Your task to perform on an android device: install app "Venmo" Image 0: 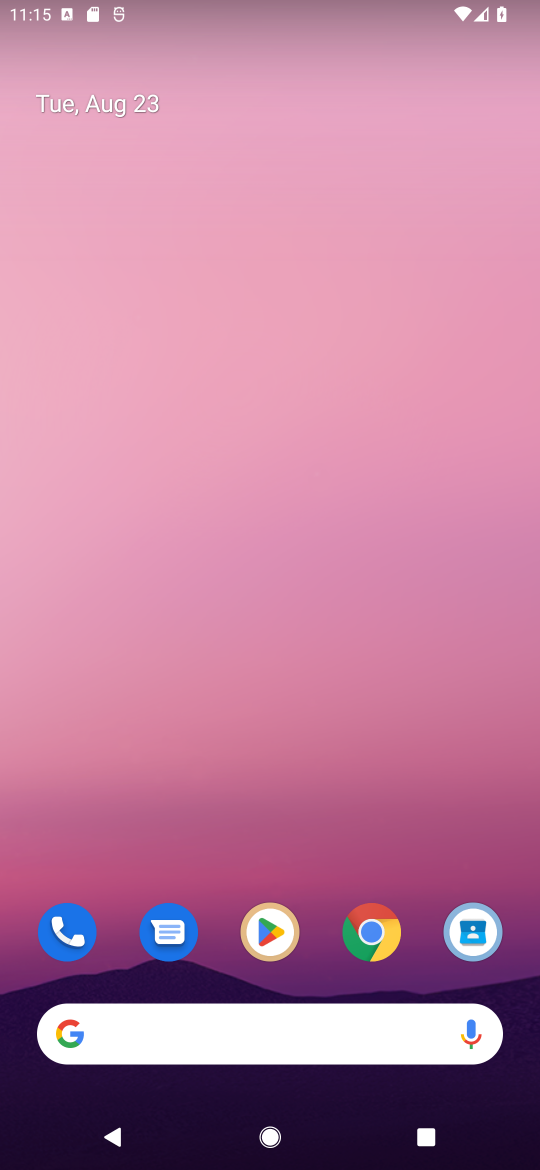
Step 0: click (281, 929)
Your task to perform on an android device: install app "Venmo" Image 1: 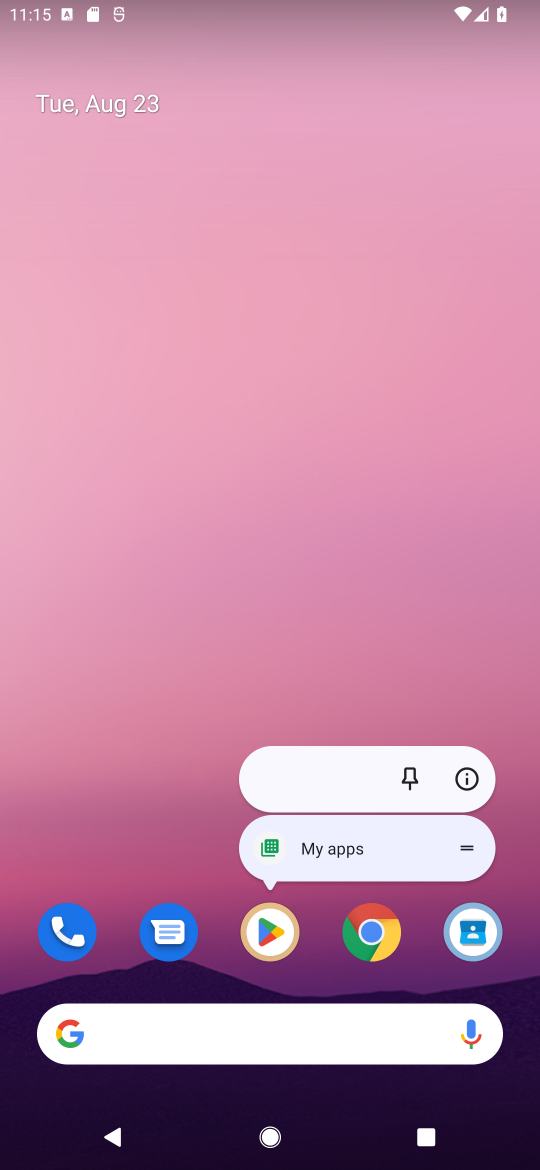
Step 1: click (262, 928)
Your task to perform on an android device: install app "Venmo" Image 2: 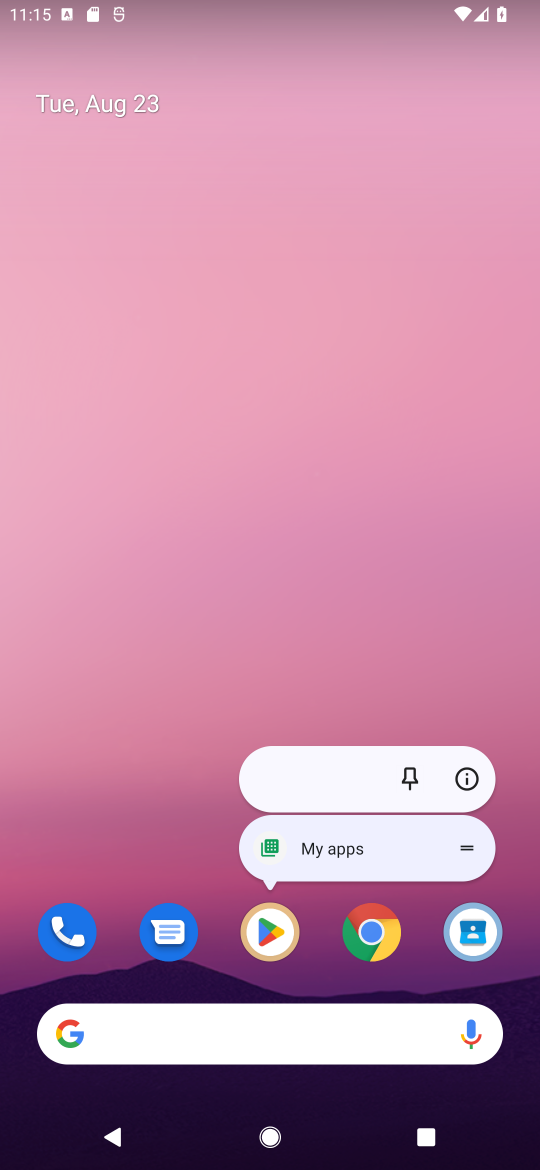
Step 2: click (266, 937)
Your task to perform on an android device: install app "Venmo" Image 3: 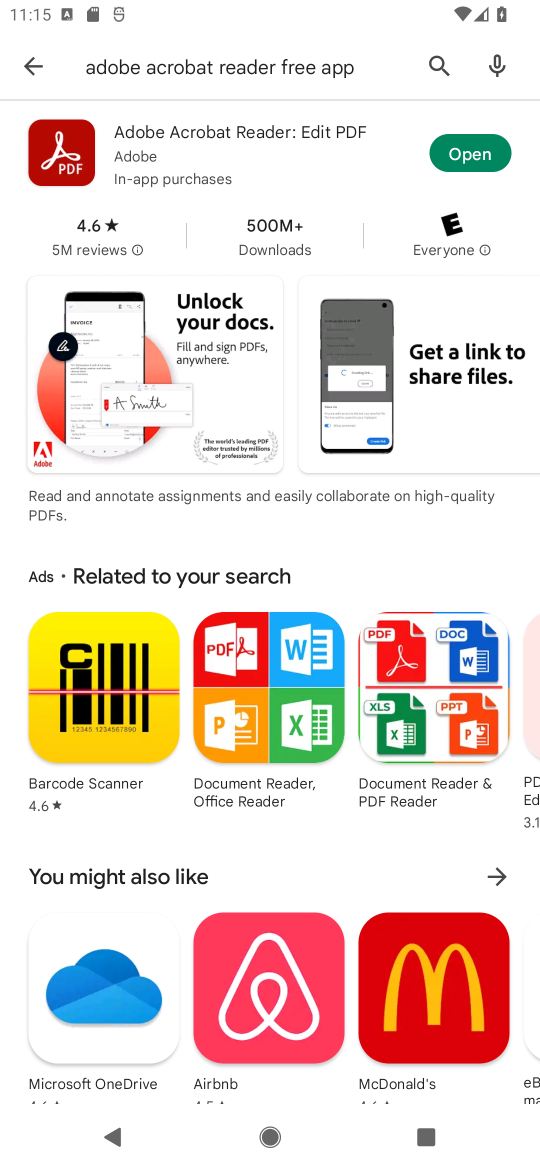
Step 3: click (423, 59)
Your task to perform on an android device: install app "Venmo" Image 4: 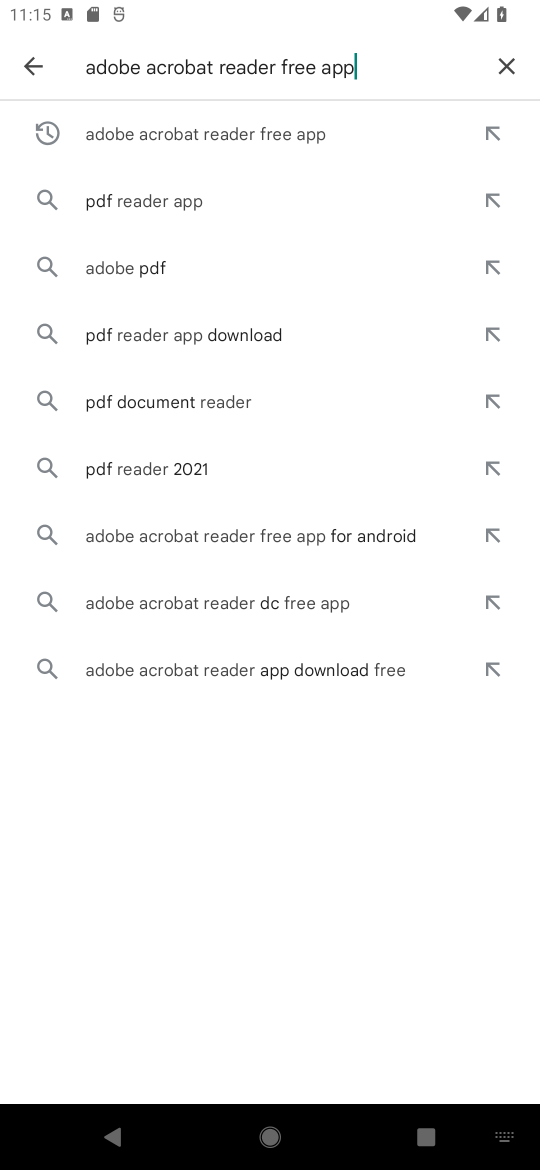
Step 4: click (505, 62)
Your task to perform on an android device: install app "Venmo" Image 5: 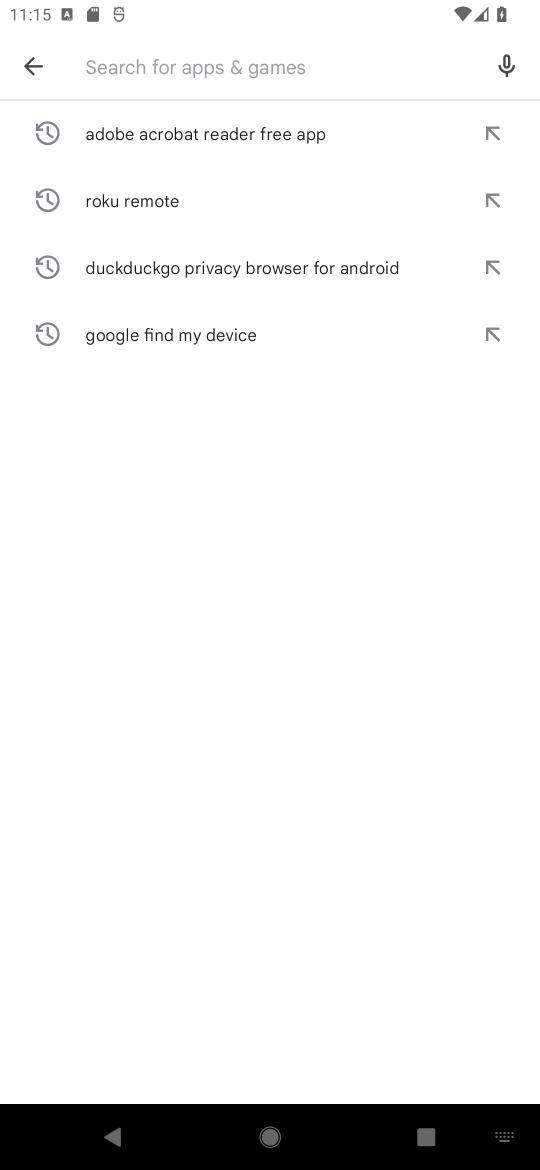
Step 5: click (180, 76)
Your task to perform on an android device: install app "Venmo" Image 6: 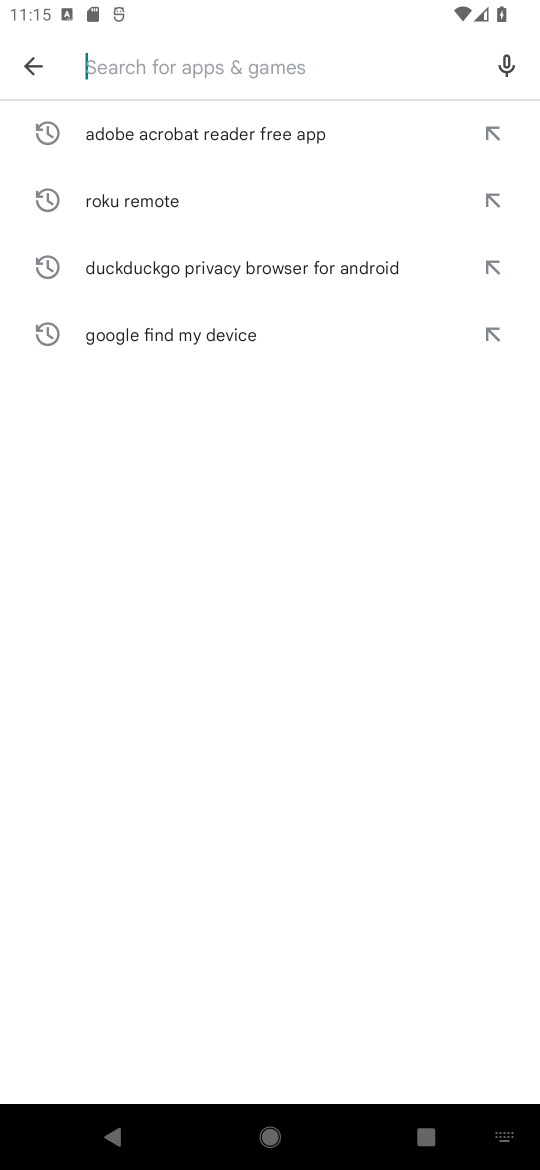
Step 6: type "venmo"
Your task to perform on an android device: install app "Venmo" Image 7: 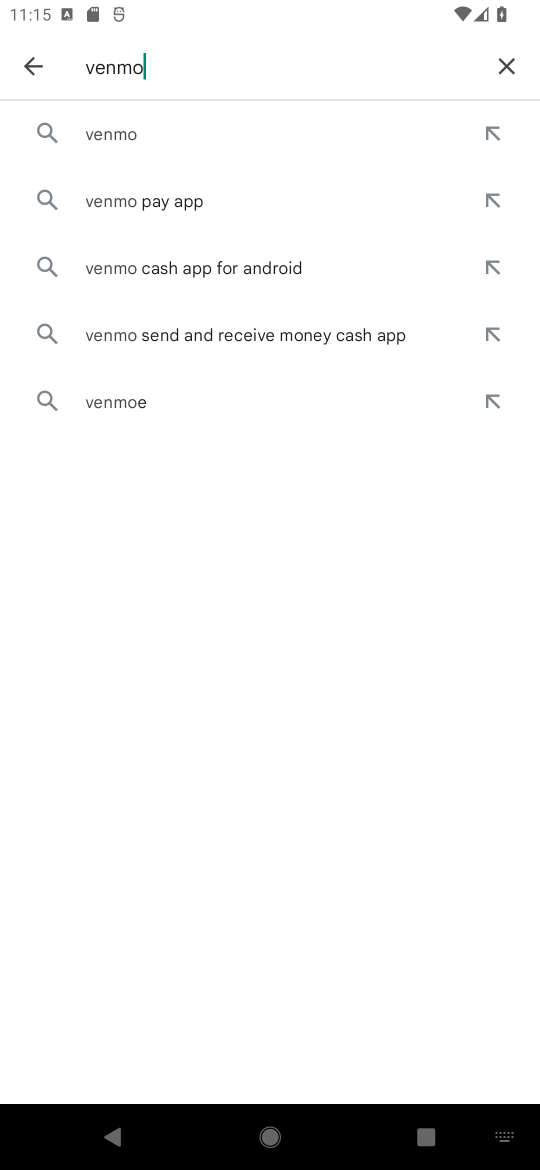
Step 7: click (132, 127)
Your task to perform on an android device: install app "Venmo" Image 8: 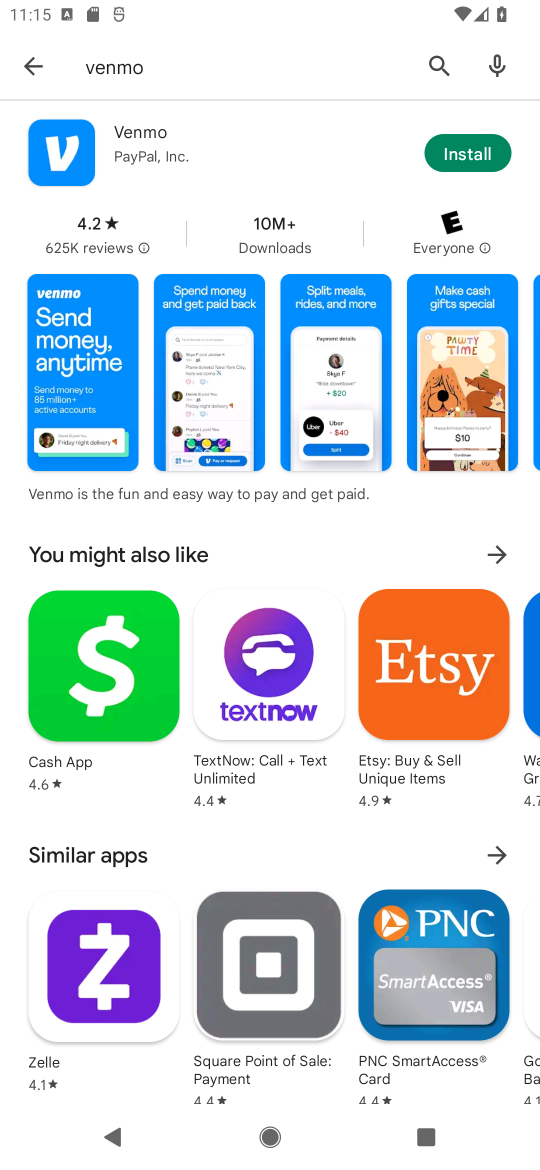
Step 8: click (473, 150)
Your task to perform on an android device: install app "Venmo" Image 9: 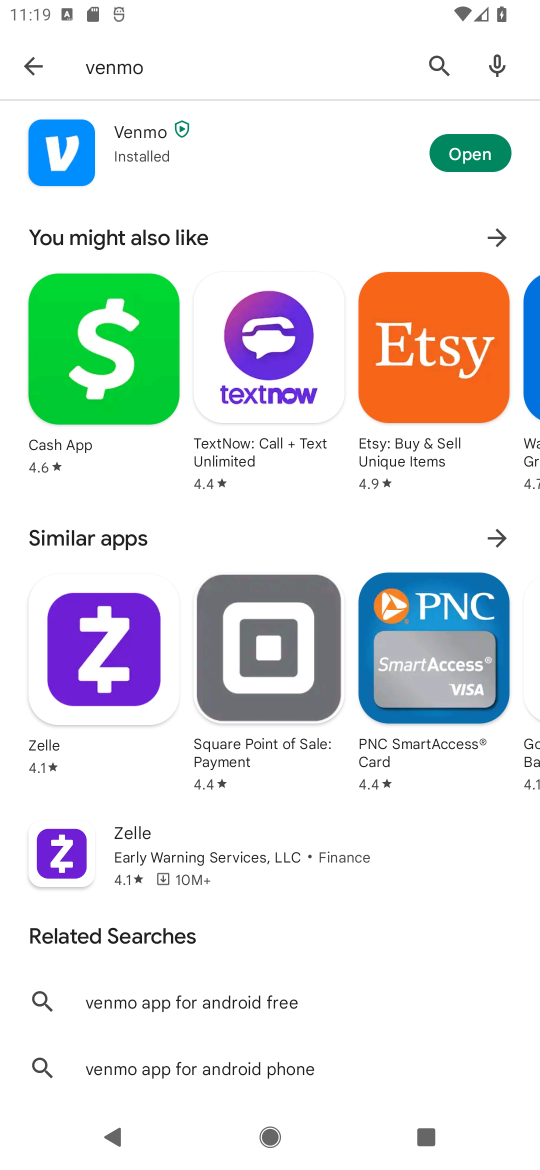
Step 9: task complete